Your task to perform on an android device: Search for "macbook air" on amazon.com, select the first entry, add it to the cart, then select checkout. Image 0: 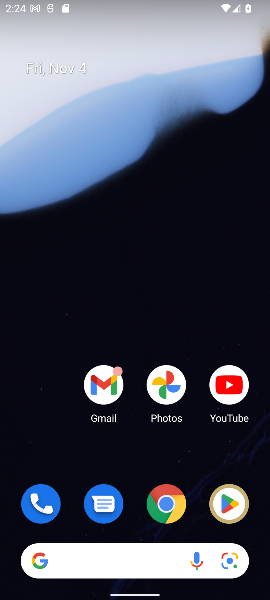
Step 0: click (159, 507)
Your task to perform on an android device: Search for "macbook air" on amazon.com, select the first entry, add it to the cart, then select checkout. Image 1: 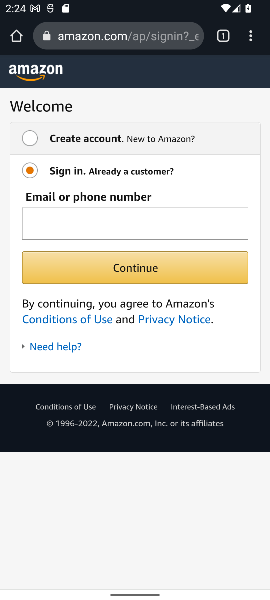
Step 1: press back button
Your task to perform on an android device: Search for "macbook air" on amazon.com, select the first entry, add it to the cart, then select checkout. Image 2: 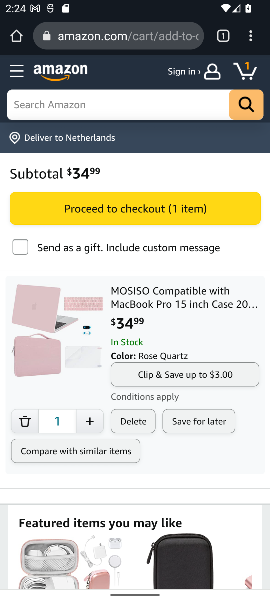
Step 2: click (87, 109)
Your task to perform on an android device: Search for "macbook air" on amazon.com, select the first entry, add it to the cart, then select checkout. Image 3: 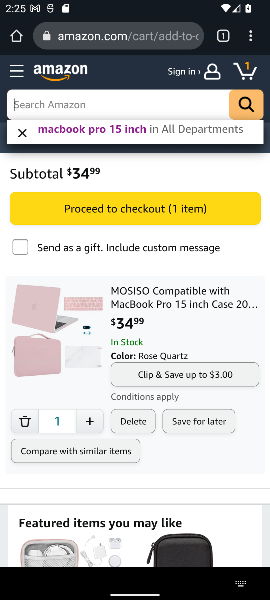
Step 3: type "macbook air"
Your task to perform on an android device: Search for "macbook air" on amazon.com, select the first entry, add it to the cart, then select checkout. Image 4: 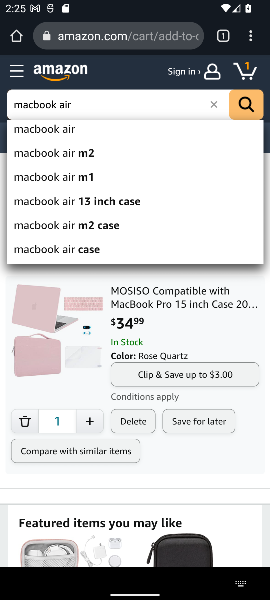
Step 4: click (64, 121)
Your task to perform on an android device: Search for "macbook air" on amazon.com, select the first entry, add it to the cart, then select checkout. Image 5: 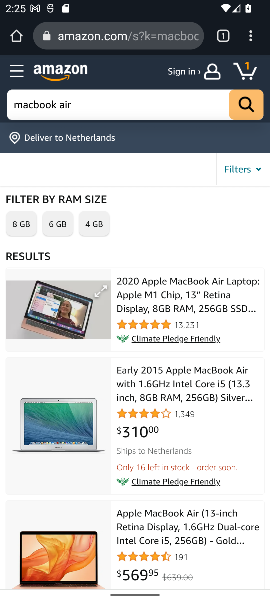
Step 5: click (125, 315)
Your task to perform on an android device: Search for "macbook air" on amazon.com, select the first entry, add it to the cart, then select checkout. Image 6: 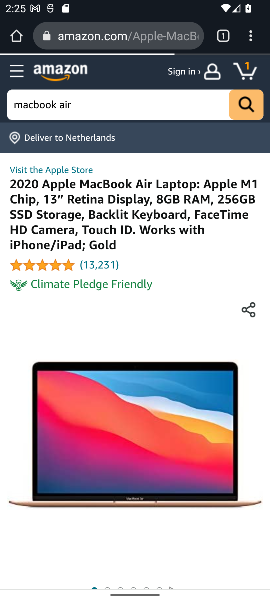
Step 6: task complete